Your task to perform on an android device: turn off translation in the chrome app Image 0: 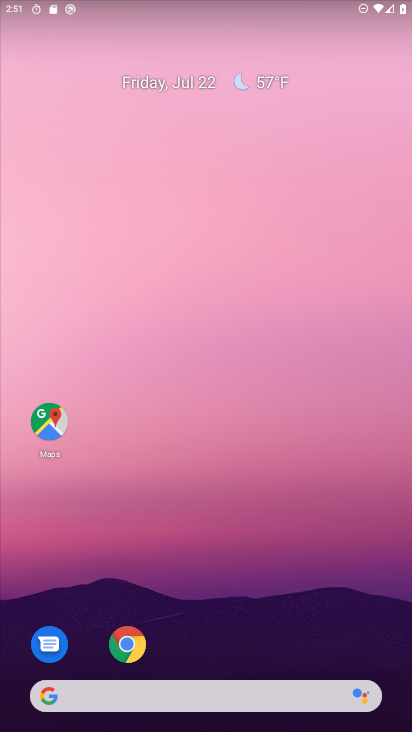
Step 0: click (134, 636)
Your task to perform on an android device: turn off translation in the chrome app Image 1: 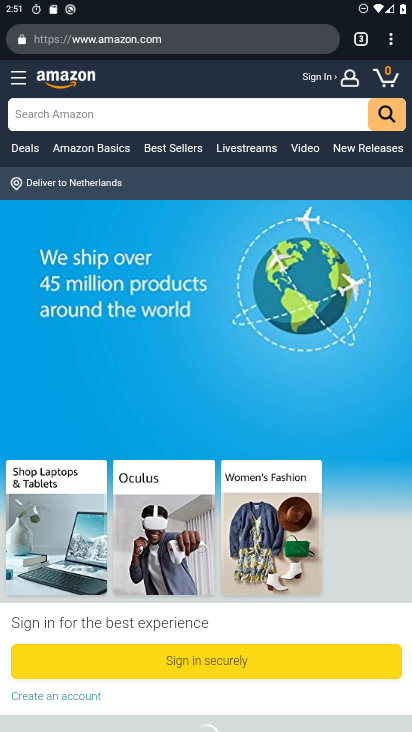
Step 1: click (16, 88)
Your task to perform on an android device: turn off translation in the chrome app Image 2: 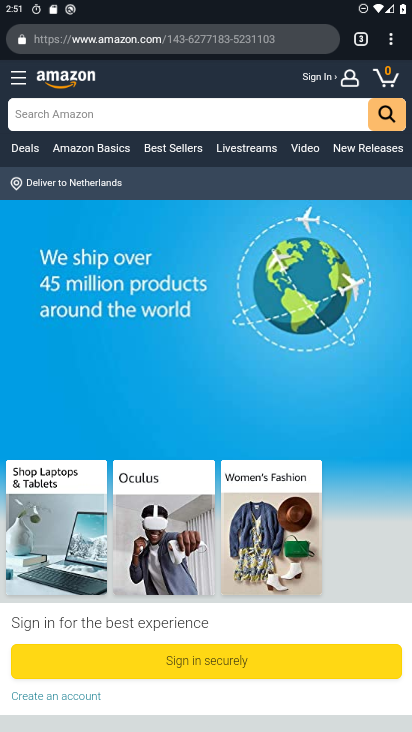
Step 2: click (384, 35)
Your task to perform on an android device: turn off translation in the chrome app Image 3: 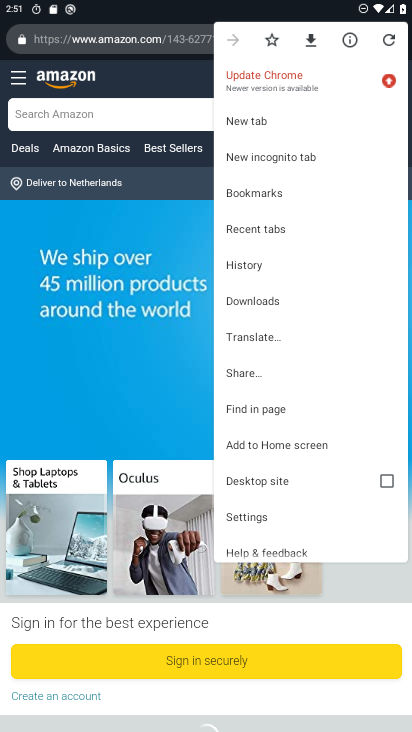
Step 3: click (252, 514)
Your task to perform on an android device: turn off translation in the chrome app Image 4: 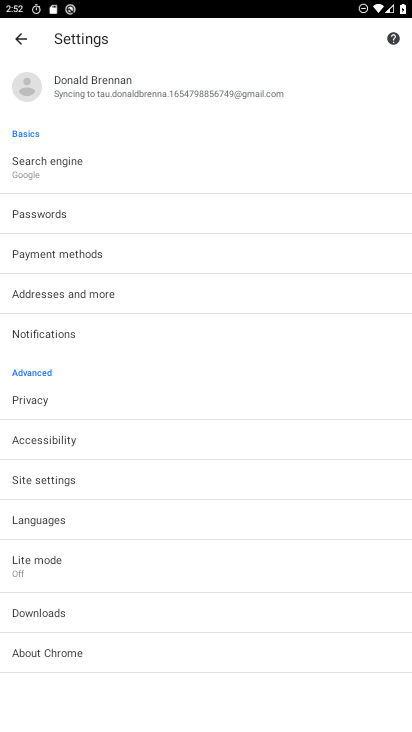
Step 4: click (71, 517)
Your task to perform on an android device: turn off translation in the chrome app Image 5: 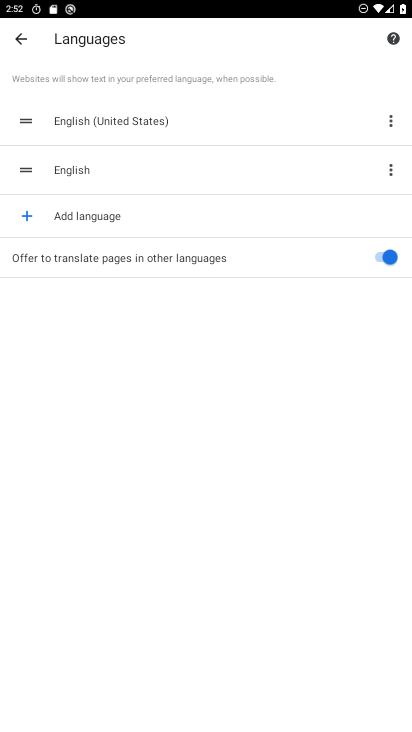
Step 5: click (368, 254)
Your task to perform on an android device: turn off translation in the chrome app Image 6: 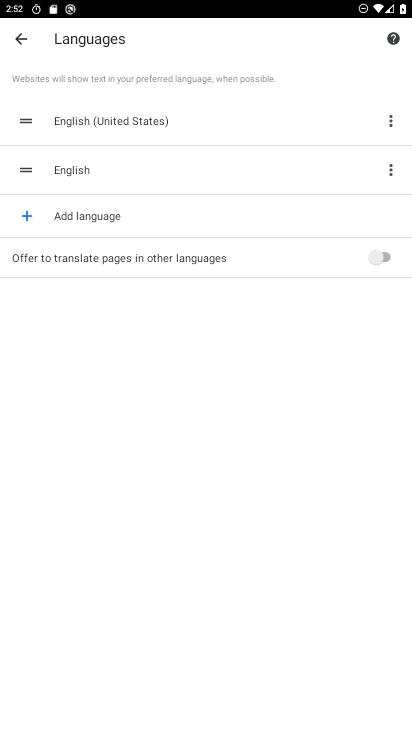
Step 6: task complete